Your task to perform on an android device: See recent photos Image 0: 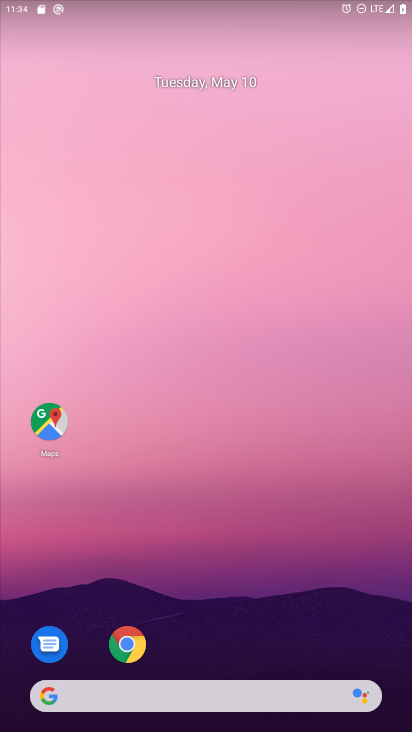
Step 0: drag from (181, 697) to (249, 86)
Your task to perform on an android device: See recent photos Image 1: 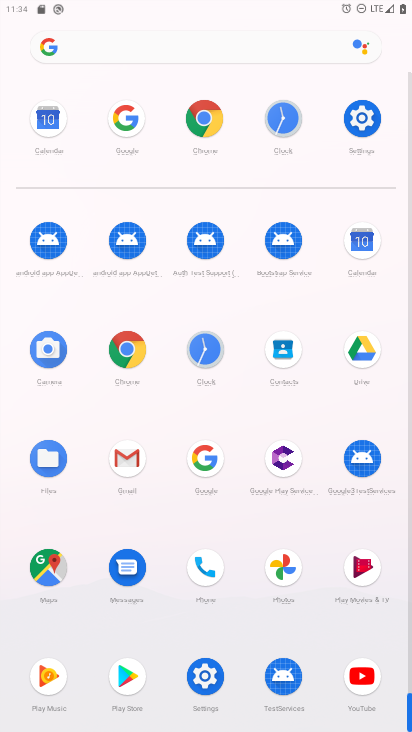
Step 1: click (277, 577)
Your task to perform on an android device: See recent photos Image 2: 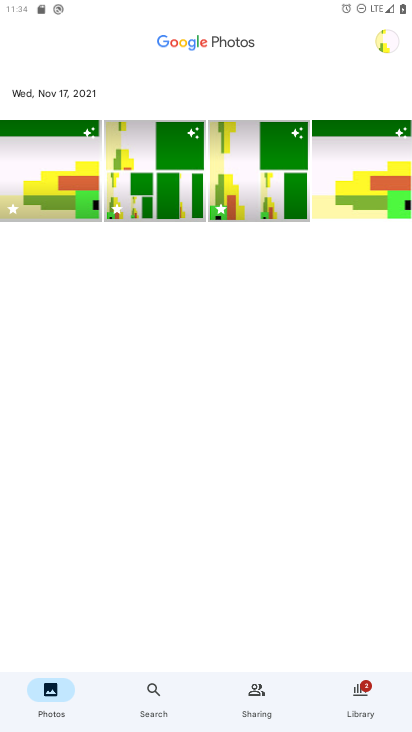
Step 2: task complete